Your task to perform on an android device: Go to display settings Image 0: 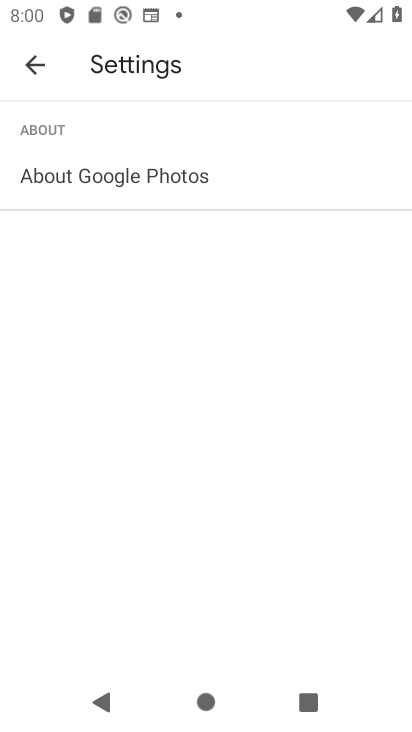
Step 0: press home button
Your task to perform on an android device: Go to display settings Image 1: 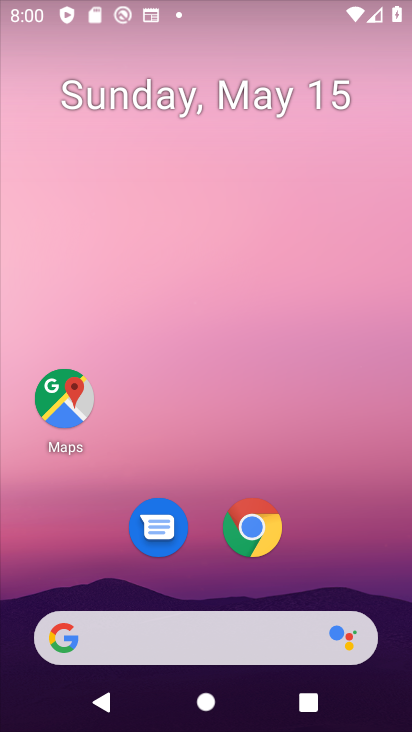
Step 1: drag from (207, 566) to (198, 174)
Your task to perform on an android device: Go to display settings Image 2: 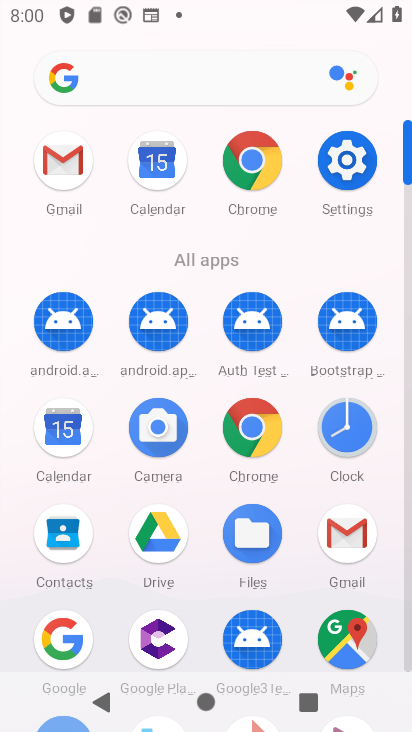
Step 2: click (327, 174)
Your task to perform on an android device: Go to display settings Image 3: 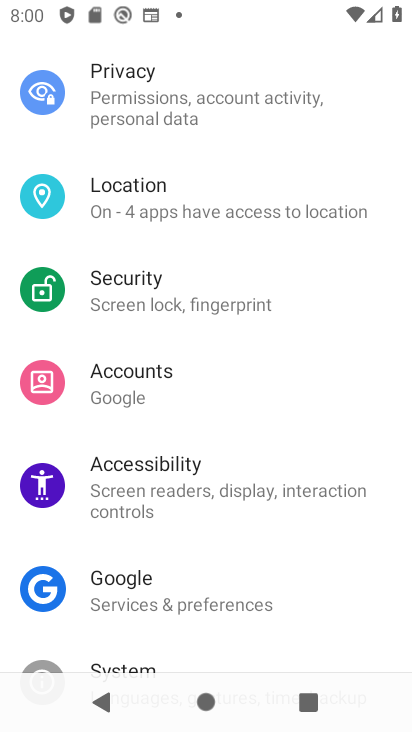
Step 3: drag from (276, 160) to (275, 468)
Your task to perform on an android device: Go to display settings Image 4: 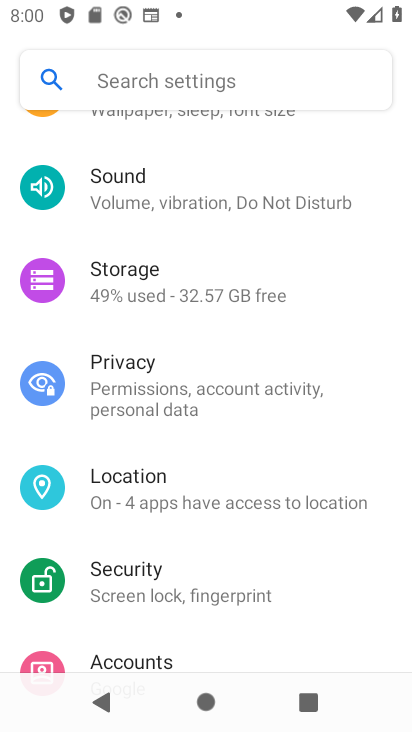
Step 4: drag from (160, 215) to (172, 425)
Your task to perform on an android device: Go to display settings Image 5: 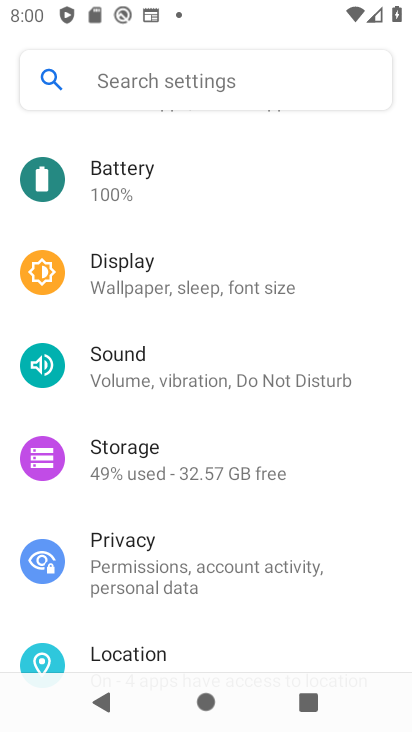
Step 5: click (177, 267)
Your task to perform on an android device: Go to display settings Image 6: 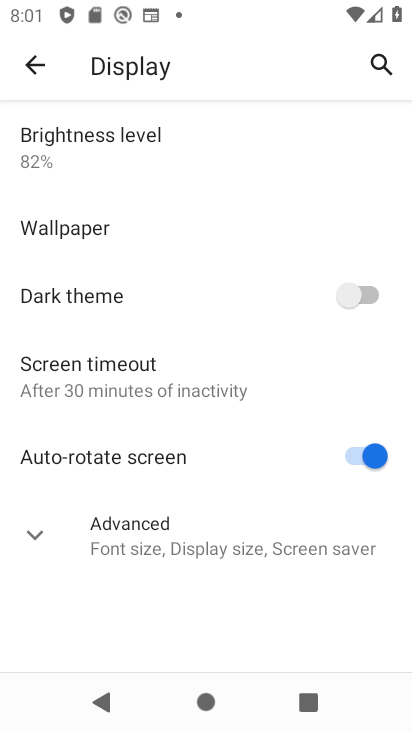
Step 6: task complete